Your task to perform on an android device: turn on javascript in the chrome app Image 0: 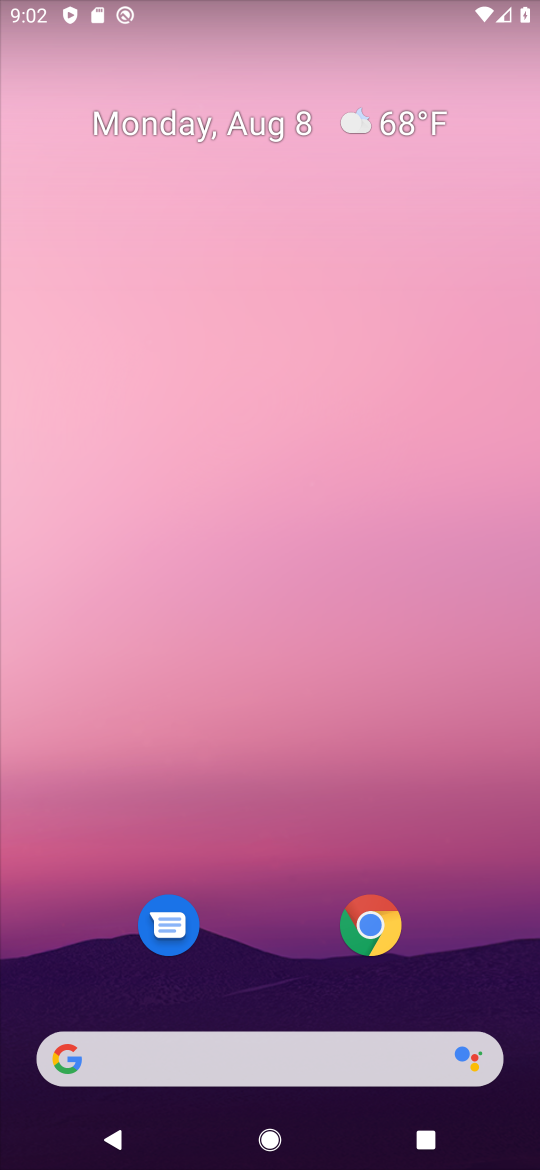
Step 0: drag from (331, 454) to (382, 134)
Your task to perform on an android device: turn on javascript in the chrome app Image 1: 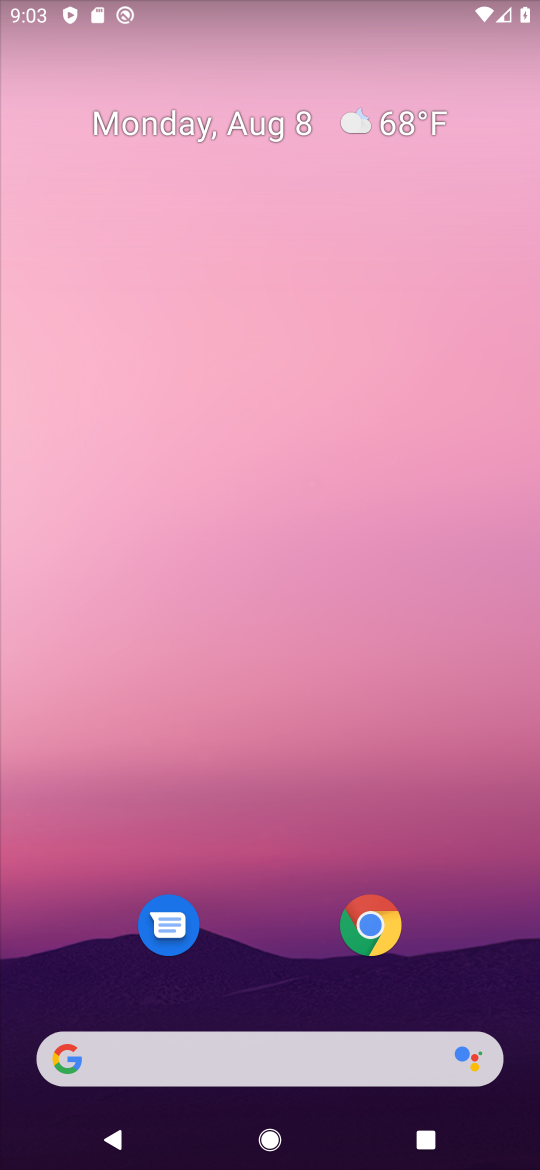
Step 1: drag from (256, 934) to (337, 202)
Your task to perform on an android device: turn on javascript in the chrome app Image 2: 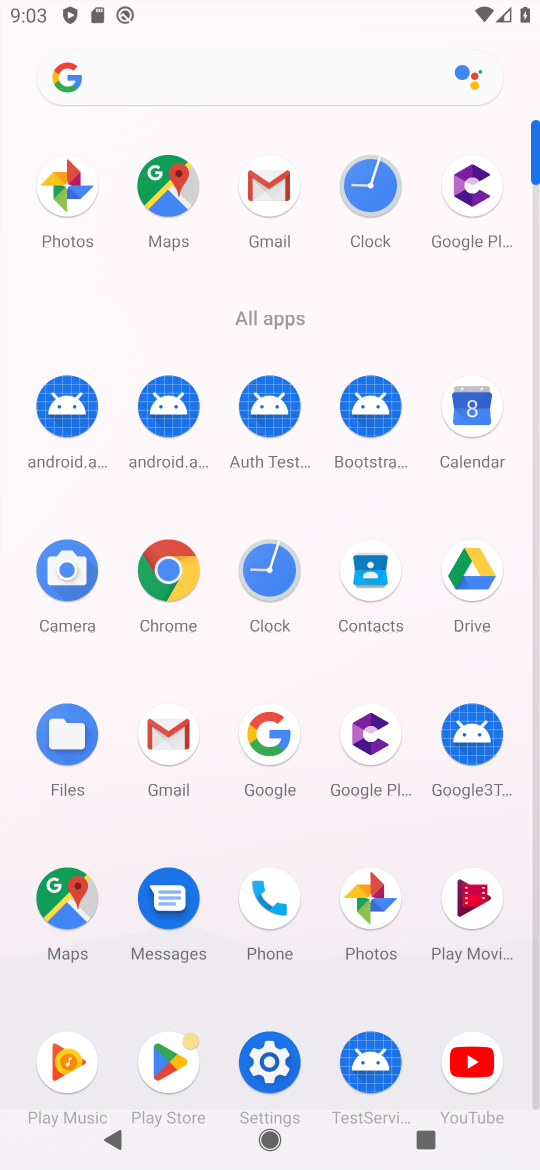
Step 2: click (171, 564)
Your task to perform on an android device: turn on javascript in the chrome app Image 3: 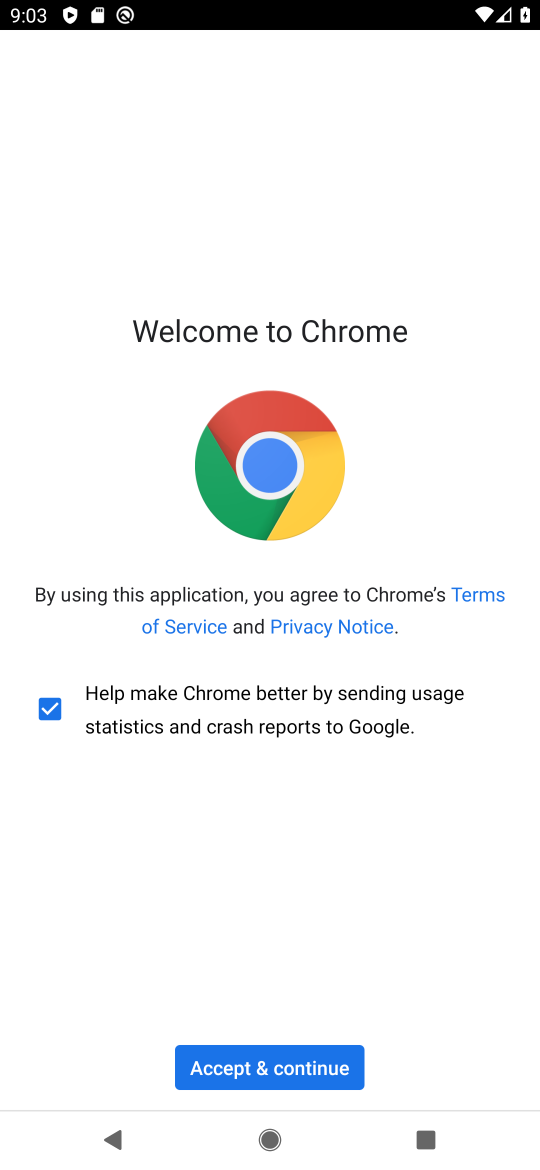
Step 3: click (253, 1062)
Your task to perform on an android device: turn on javascript in the chrome app Image 4: 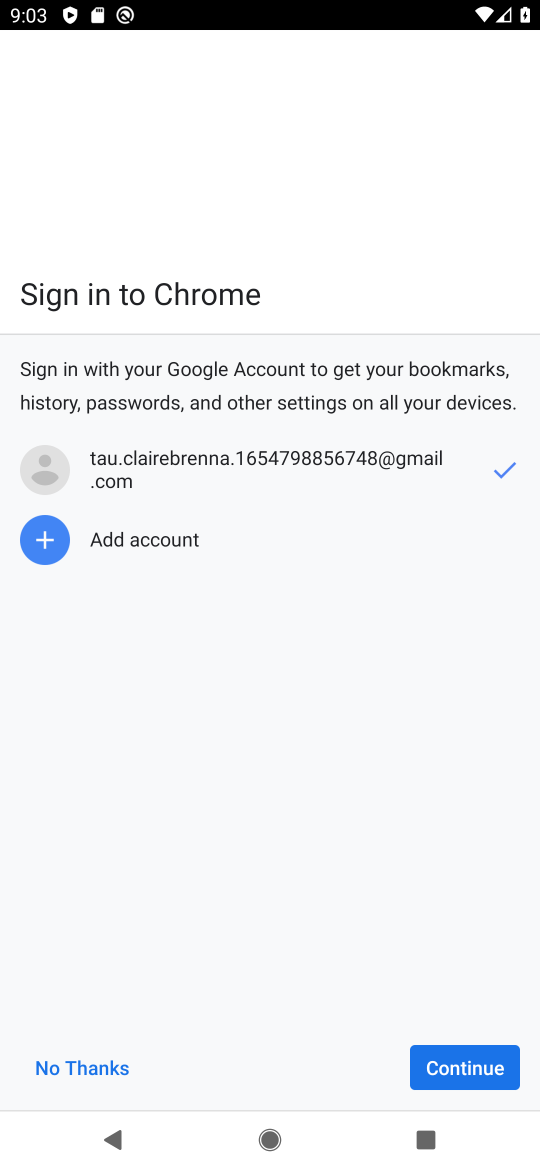
Step 4: click (501, 1045)
Your task to perform on an android device: turn on javascript in the chrome app Image 5: 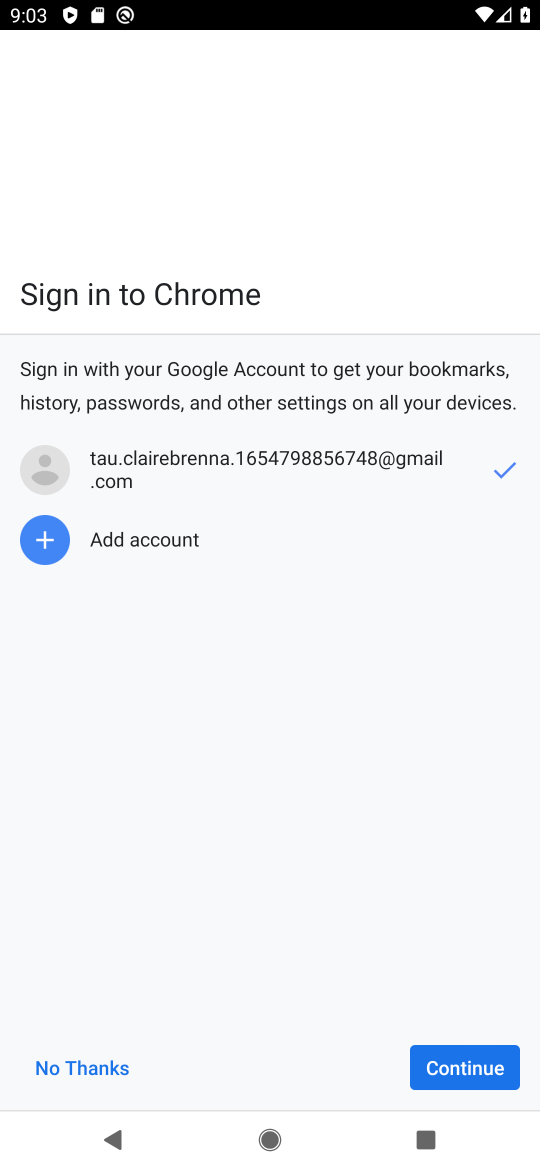
Step 5: click (495, 1076)
Your task to perform on an android device: turn on javascript in the chrome app Image 6: 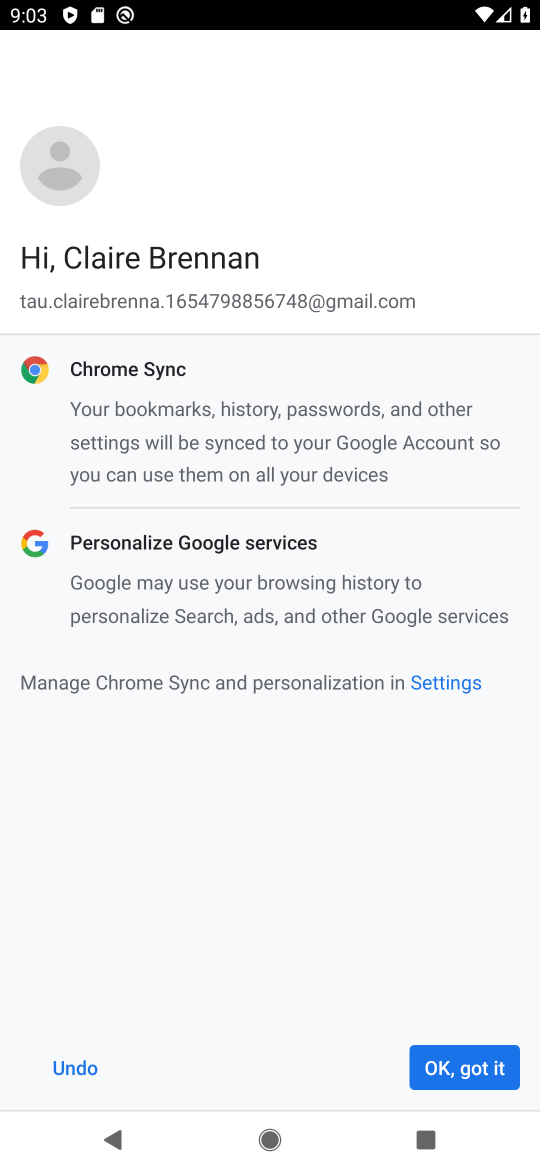
Step 6: click (494, 1067)
Your task to perform on an android device: turn on javascript in the chrome app Image 7: 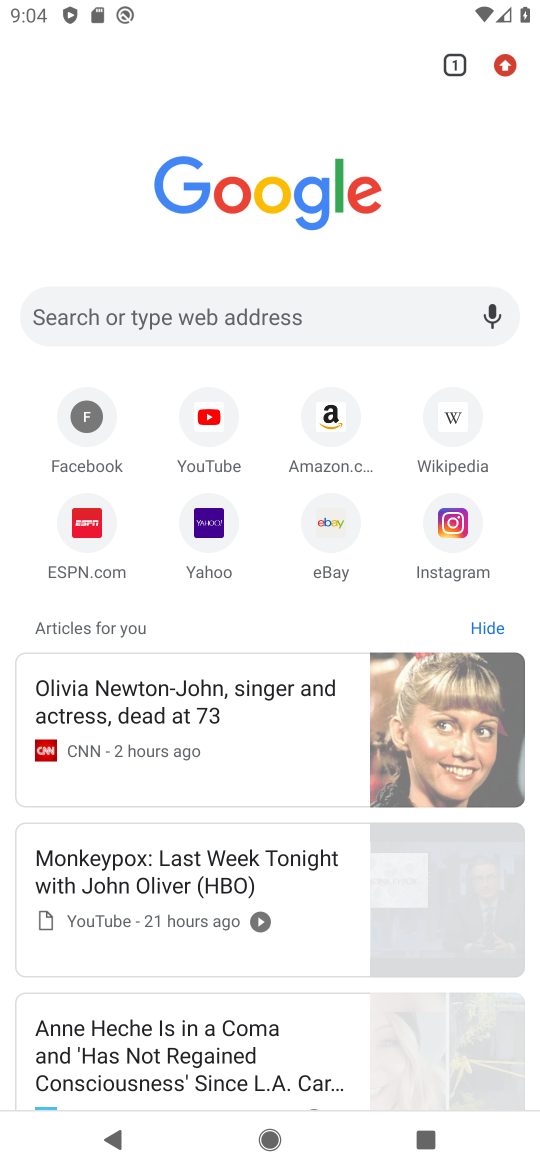
Step 7: drag from (498, 73) to (289, 621)
Your task to perform on an android device: turn on javascript in the chrome app Image 8: 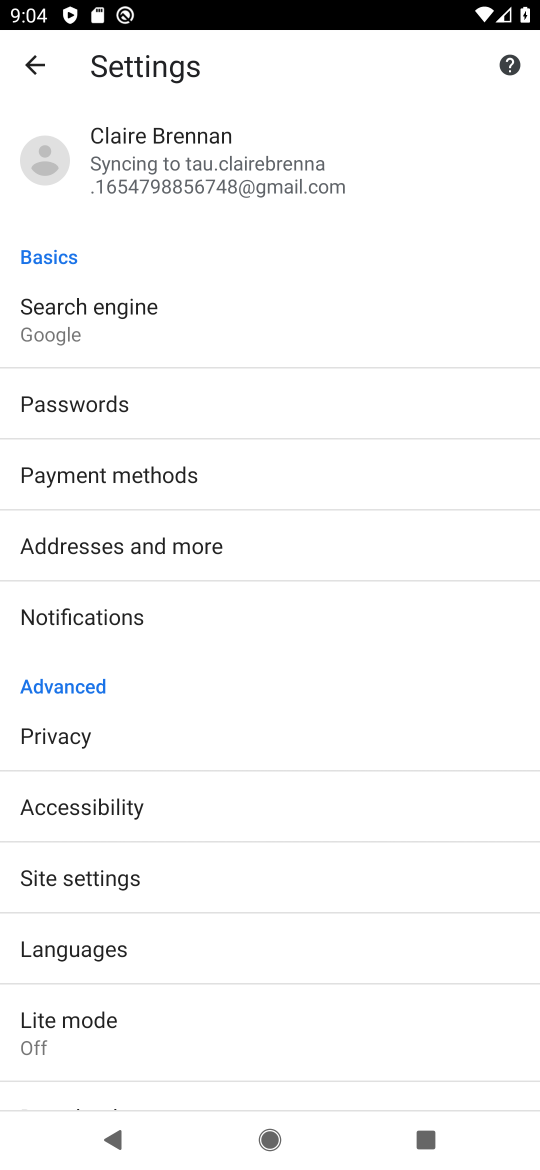
Step 8: click (113, 873)
Your task to perform on an android device: turn on javascript in the chrome app Image 9: 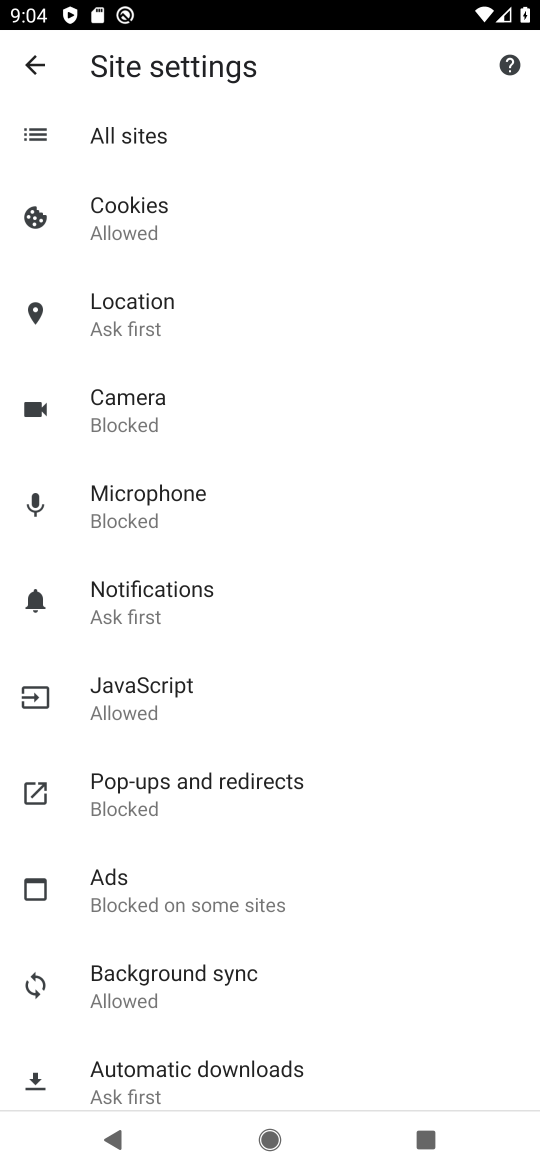
Step 9: click (187, 684)
Your task to perform on an android device: turn on javascript in the chrome app Image 10: 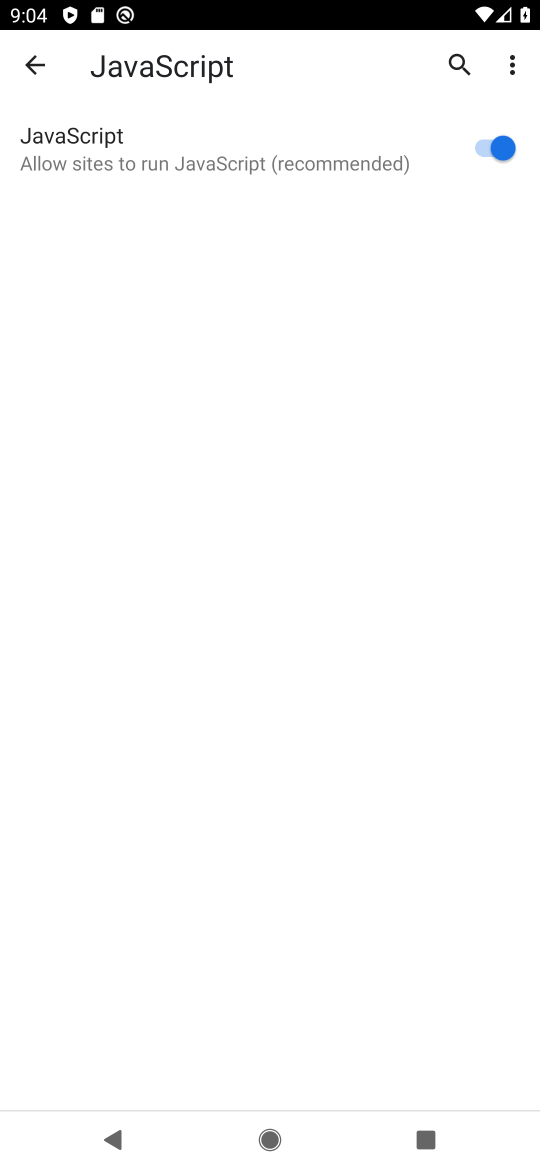
Step 10: task complete